Your task to perform on an android device: change the clock display to show seconds Image 0: 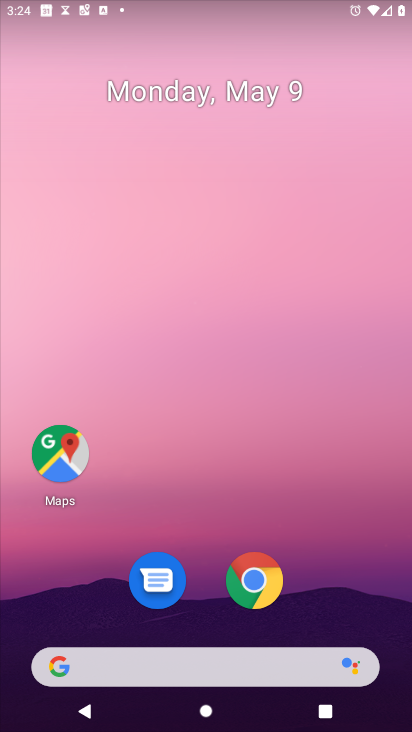
Step 0: drag from (314, 497) to (216, 94)
Your task to perform on an android device: change the clock display to show seconds Image 1: 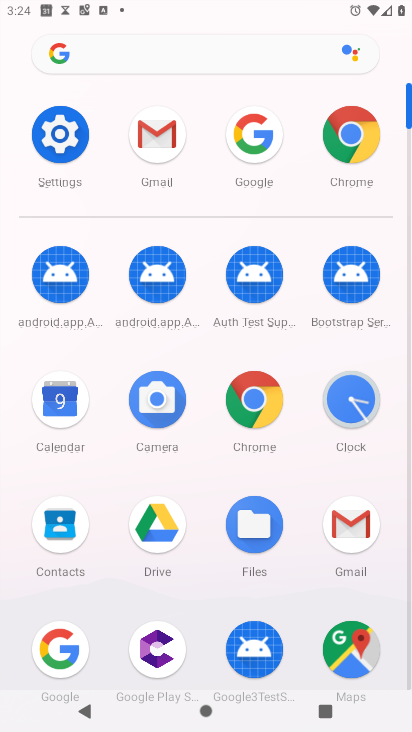
Step 1: click (350, 396)
Your task to perform on an android device: change the clock display to show seconds Image 2: 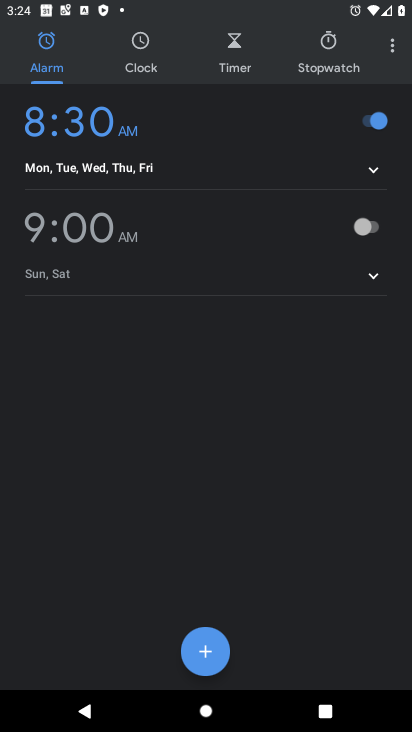
Step 2: click (389, 35)
Your task to perform on an android device: change the clock display to show seconds Image 3: 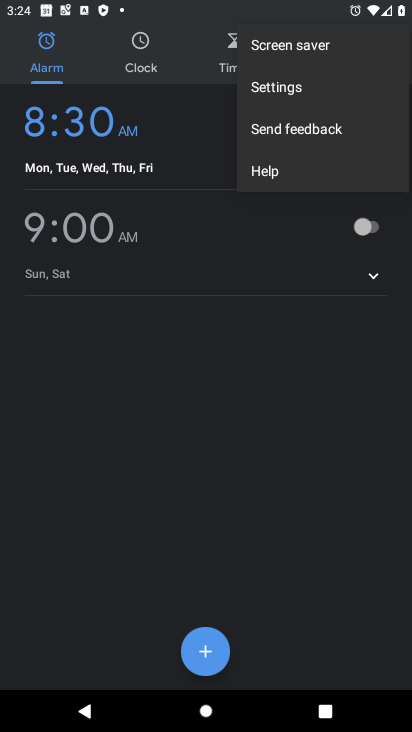
Step 3: click (281, 89)
Your task to perform on an android device: change the clock display to show seconds Image 4: 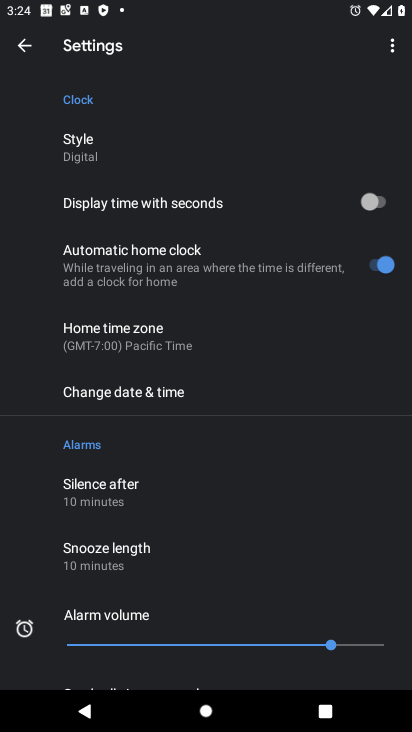
Step 4: click (367, 206)
Your task to perform on an android device: change the clock display to show seconds Image 5: 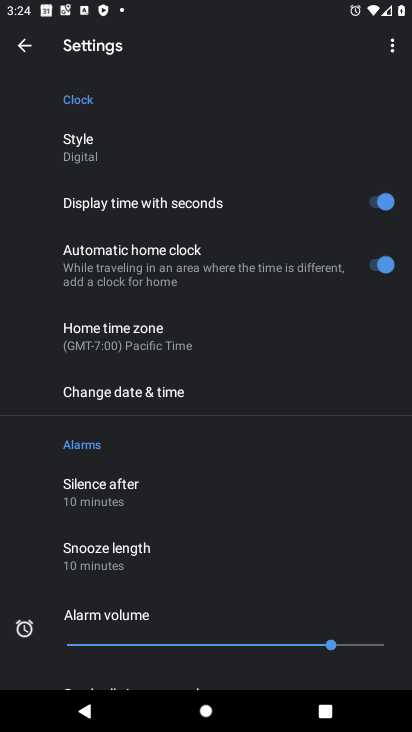
Step 5: task complete